Your task to perform on an android device: turn off notifications settings in the gmail app Image 0: 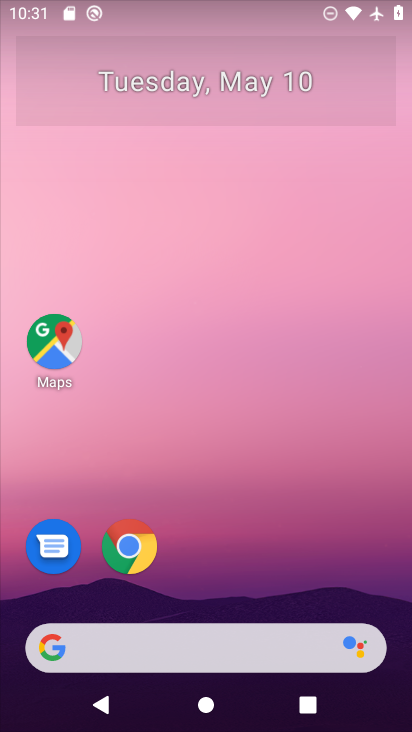
Step 0: drag from (300, 611) to (247, 185)
Your task to perform on an android device: turn off notifications settings in the gmail app Image 1: 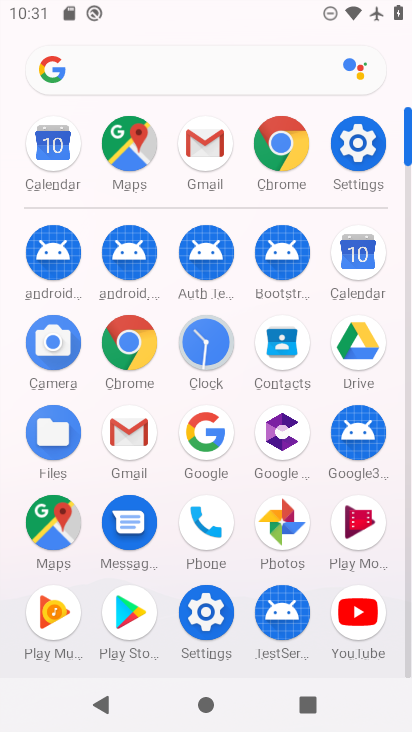
Step 1: click (191, 149)
Your task to perform on an android device: turn off notifications settings in the gmail app Image 2: 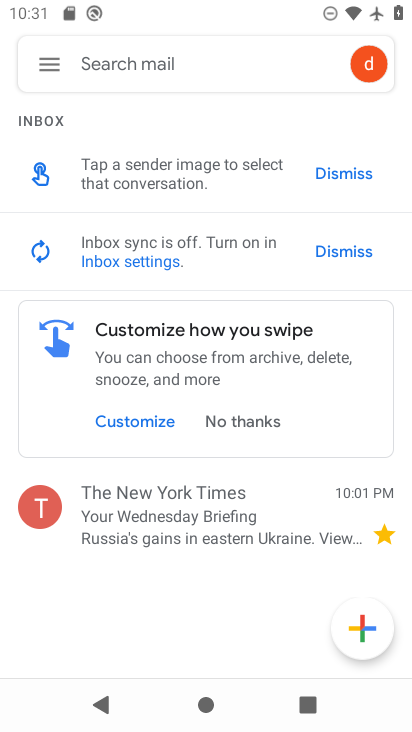
Step 2: click (51, 65)
Your task to perform on an android device: turn off notifications settings in the gmail app Image 3: 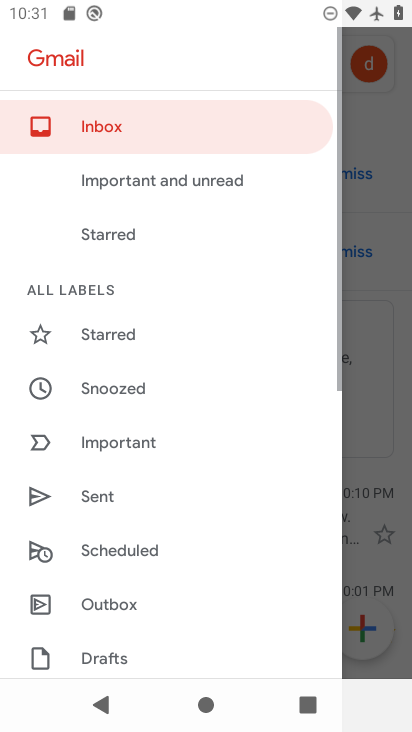
Step 3: drag from (172, 572) to (228, 128)
Your task to perform on an android device: turn off notifications settings in the gmail app Image 4: 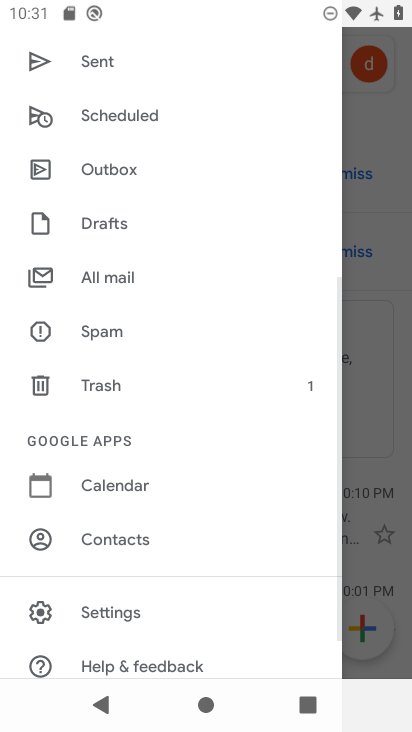
Step 4: drag from (131, 557) to (230, 194)
Your task to perform on an android device: turn off notifications settings in the gmail app Image 5: 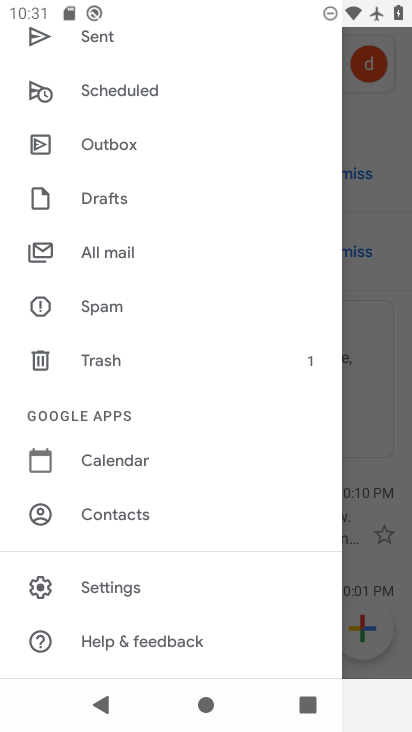
Step 5: click (131, 604)
Your task to perform on an android device: turn off notifications settings in the gmail app Image 6: 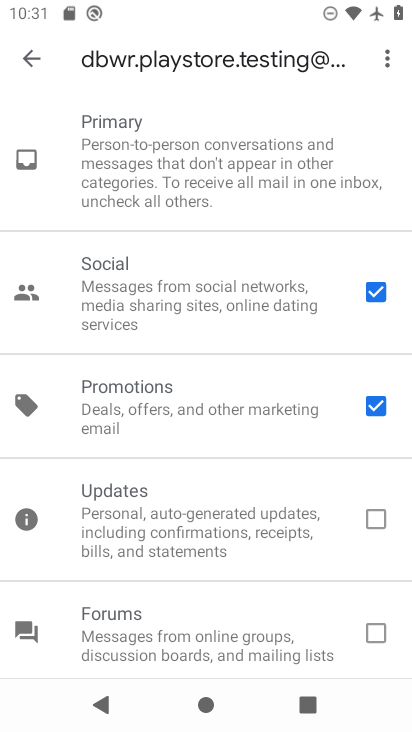
Step 6: drag from (148, 149) to (174, 567)
Your task to perform on an android device: turn off notifications settings in the gmail app Image 7: 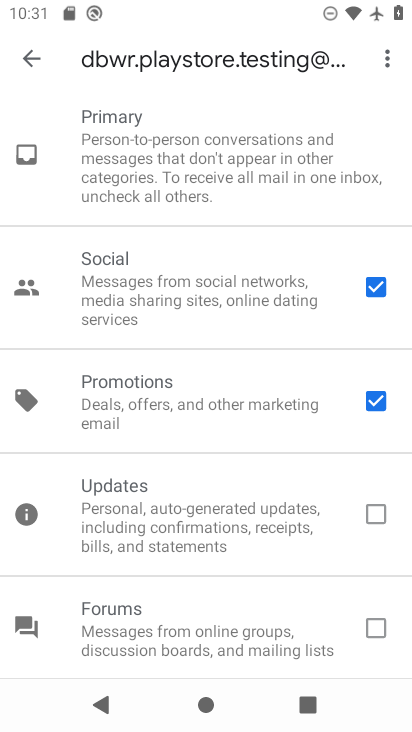
Step 7: click (39, 59)
Your task to perform on an android device: turn off notifications settings in the gmail app Image 8: 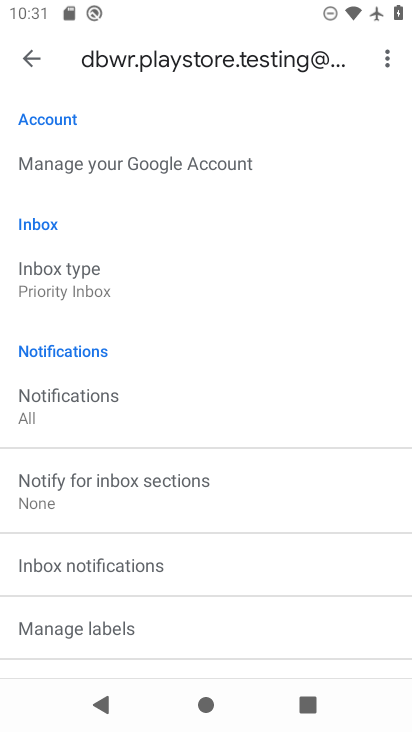
Step 8: drag from (245, 617) to (276, 283)
Your task to perform on an android device: turn off notifications settings in the gmail app Image 9: 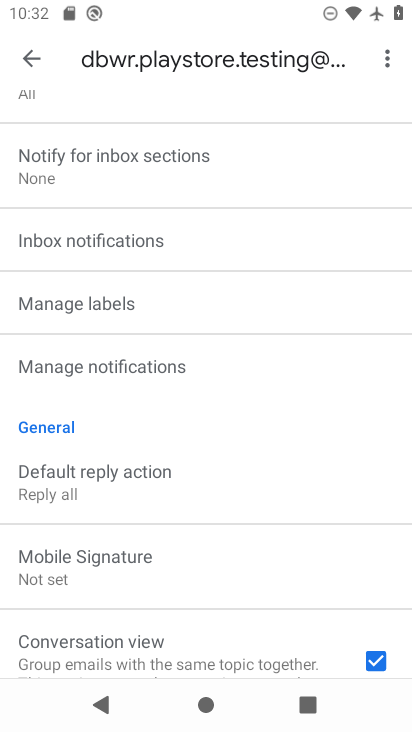
Step 9: drag from (218, 220) to (204, 338)
Your task to perform on an android device: turn off notifications settings in the gmail app Image 10: 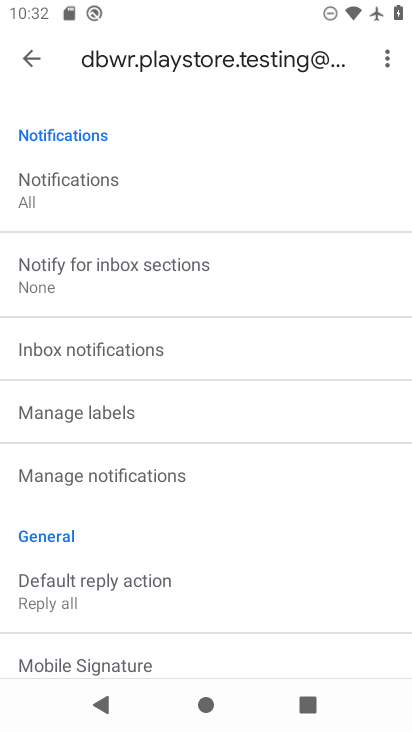
Step 10: click (146, 481)
Your task to perform on an android device: turn off notifications settings in the gmail app Image 11: 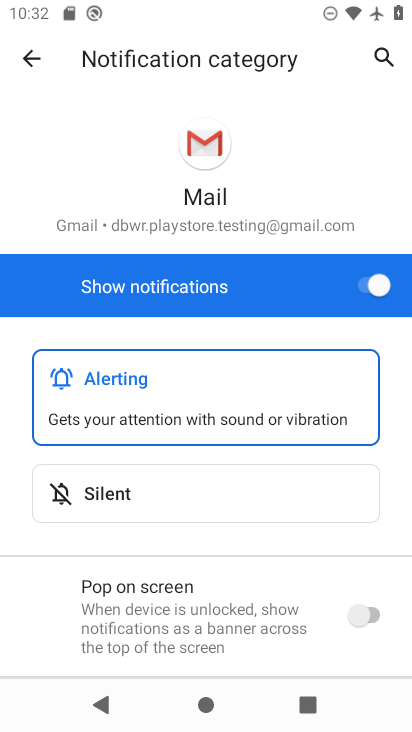
Step 11: click (365, 283)
Your task to perform on an android device: turn off notifications settings in the gmail app Image 12: 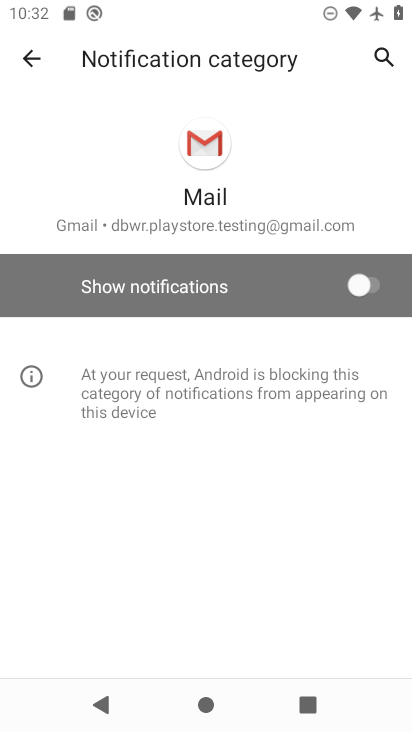
Step 12: task complete